Your task to perform on an android device: Show me productivity apps on the Play Store Image 0: 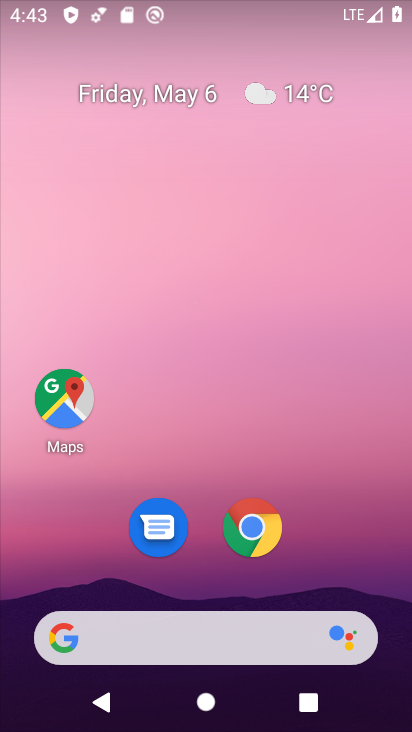
Step 0: drag from (224, 705) to (233, 187)
Your task to perform on an android device: Show me productivity apps on the Play Store Image 1: 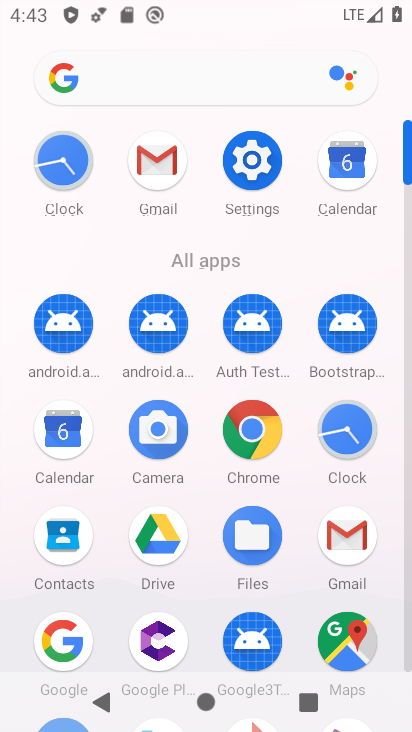
Step 1: drag from (109, 636) to (110, 189)
Your task to perform on an android device: Show me productivity apps on the Play Store Image 2: 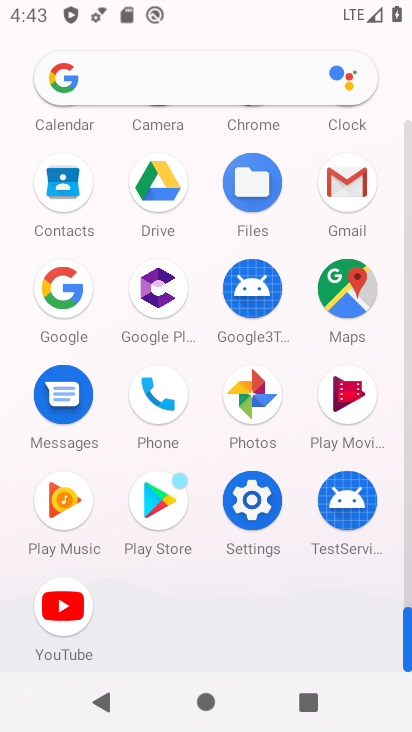
Step 2: click (161, 499)
Your task to perform on an android device: Show me productivity apps on the Play Store Image 3: 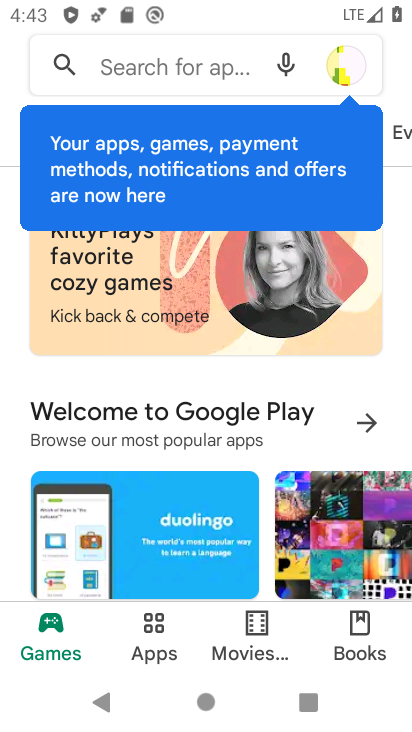
Step 3: click (157, 634)
Your task to perform on an android device: Show me productivity apps on the Play Store Image 4: 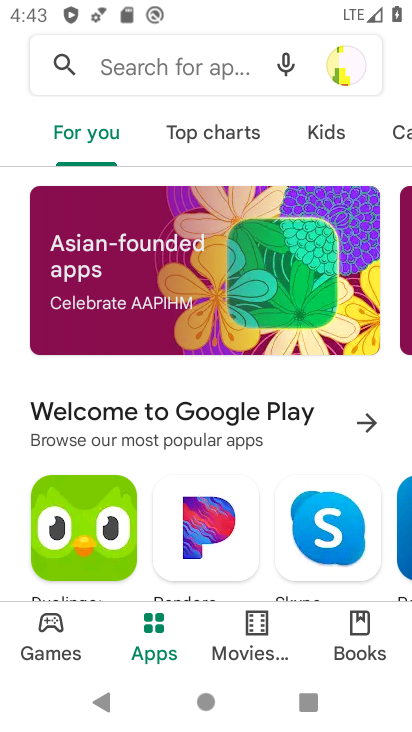
Step 4: click (399, 132)
Your task to perform on an android device: Show me productivity apps on the Play Store Image 5: 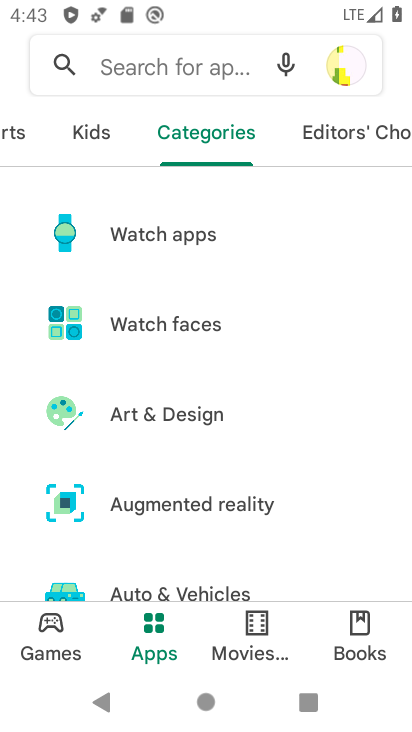
Step 5: drag from (237, 565) to (256, 262)
Your task to perform on an android device: Show me productivity apps on the Play Store Image 6: 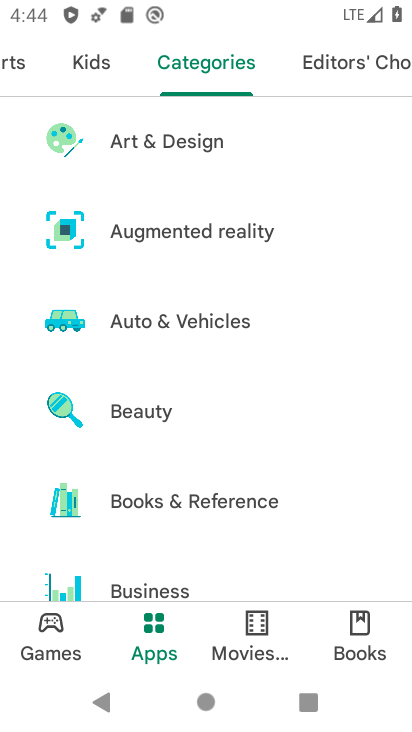
Step 6: drag from (282, 583) to (289, 254)
Your task to perform on an android device: Show me productivity apps on the Play Store Image 7: 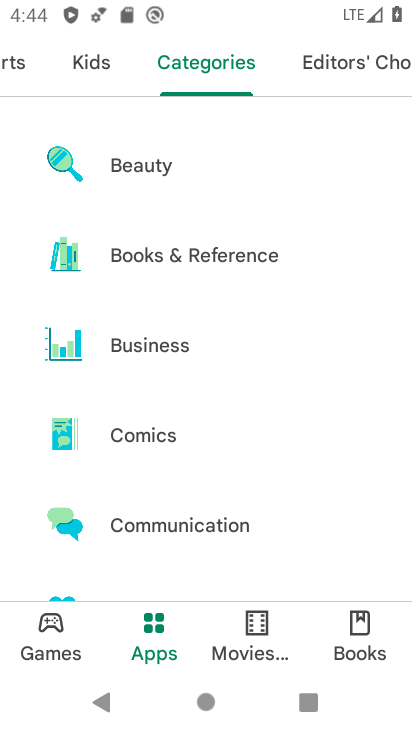
Step 7: drag from (270, 561) to (268, 202)
Your task to perform on an android device: Show me productivity apps on the Play Store Image 8: 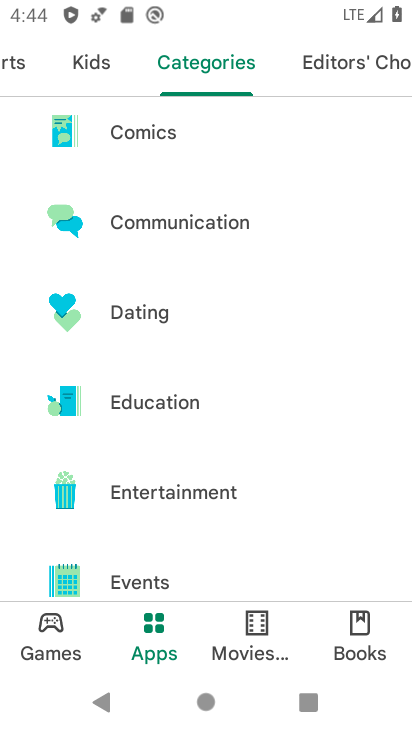
Step 8: drag from (276, 584) to (280, 252)
Your task to perform on an android device: Show me productivity apps on the Play Store Image 9: 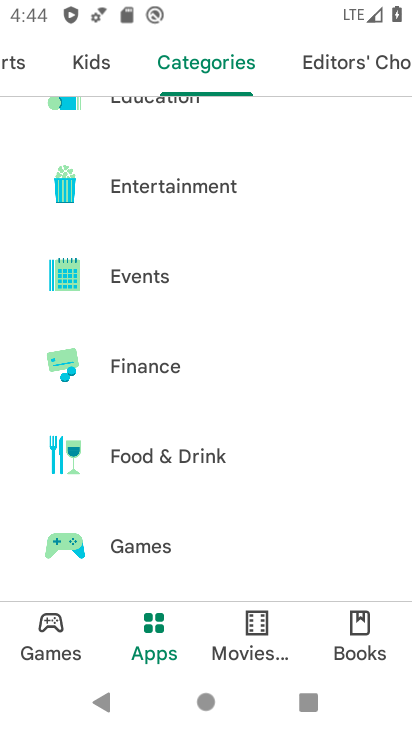
Step 9: drag from (273, 569) to (288, 222)
Your task to perform on an android device: Show me productivity apps on the Play Store Image 10: 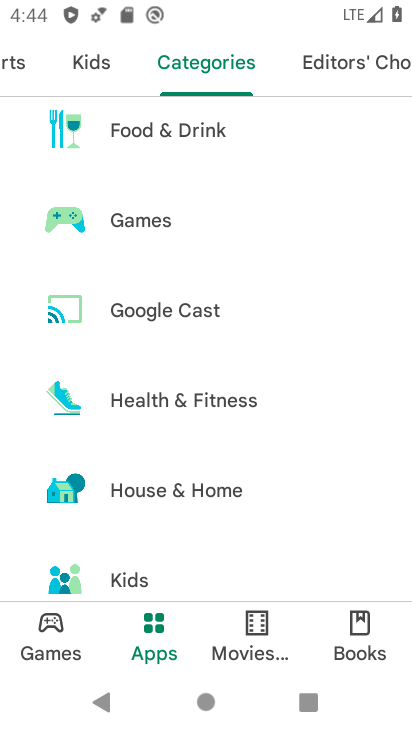
Step 10: drag from (265, 577) to (282, 221)
Your task to perform on an android device: Show me productivity apps on the Play Store Image 11: 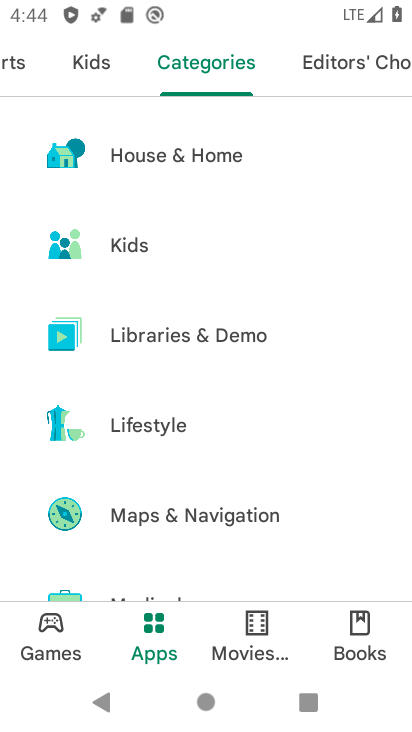
Step 11: drag from (244, 564) to (247, 344)
Your task to perform on an android device: Show me productivity apps on the Play Store Image 12: 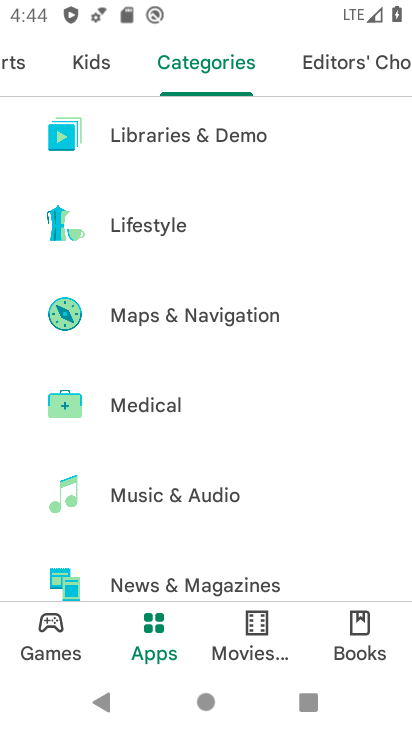
Step 12: drag from (204, 578) to (223, 181)
Your task to perform on an android device: Show me productivity apps on the Play Store Image 13: 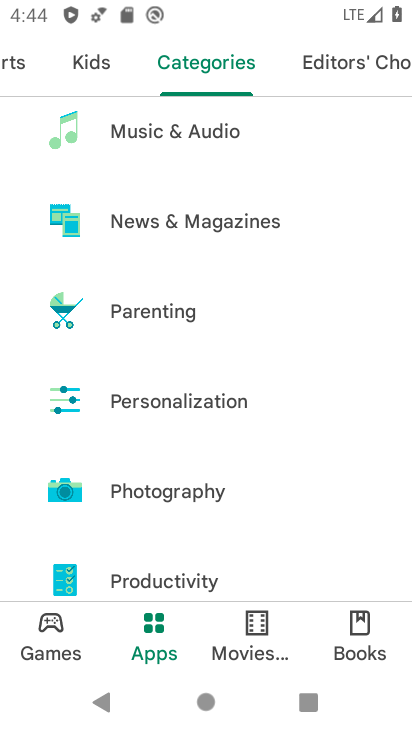
Step 13: click (179, 576)
Your task to perform on an android device: Show me productivity apps on the Play Store Image 14: 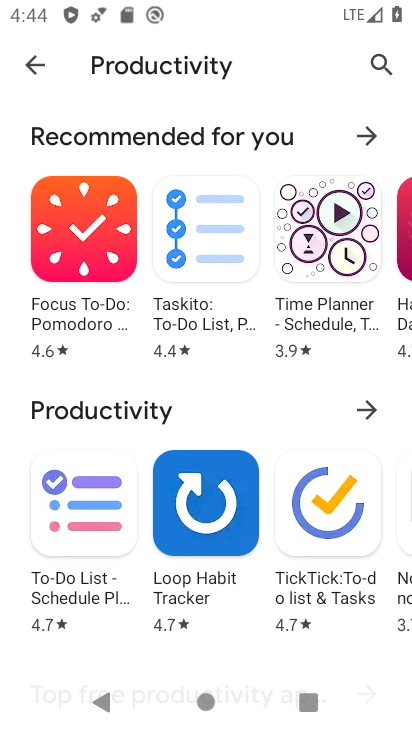
Step 14: task complete